Your task to perform on an android device: change text size in settings app Image 0: 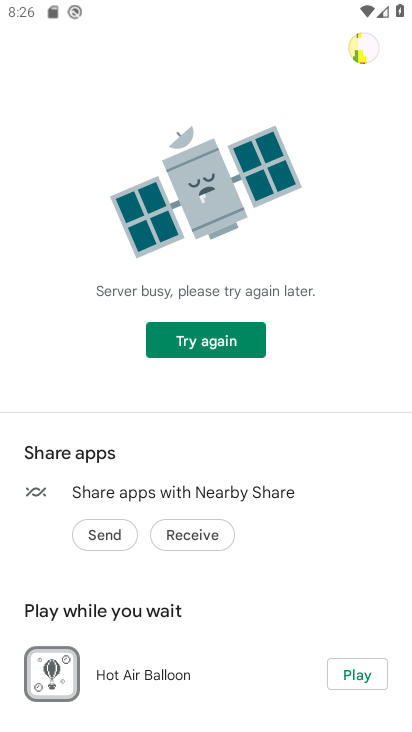
Step 0: press home button
Your task to perform on an android device: change text size in settings app Image 1: 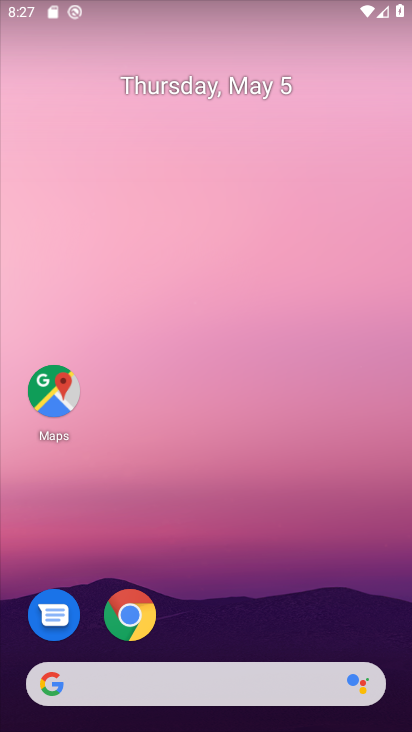
Step 1: drag from (129, 657) to (127, 198)
Your task to perform on an android device: change text size in settings app Image 2: 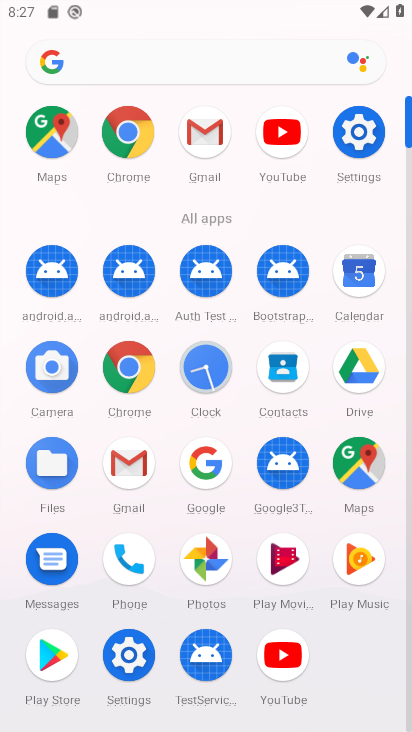
Step 2: click (370, 139)
Your task to perform on an android device: change text size in settings app Image 3: 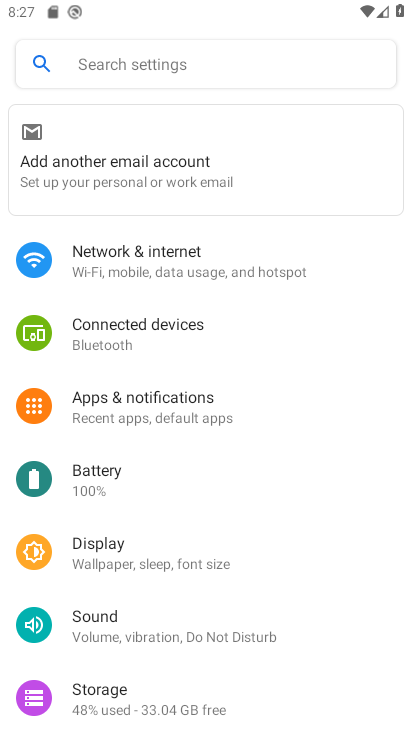
Step 3: drag from (142, 689) to (140, 283)
Your task to perform on an android device: change text size in settings app Image 4: 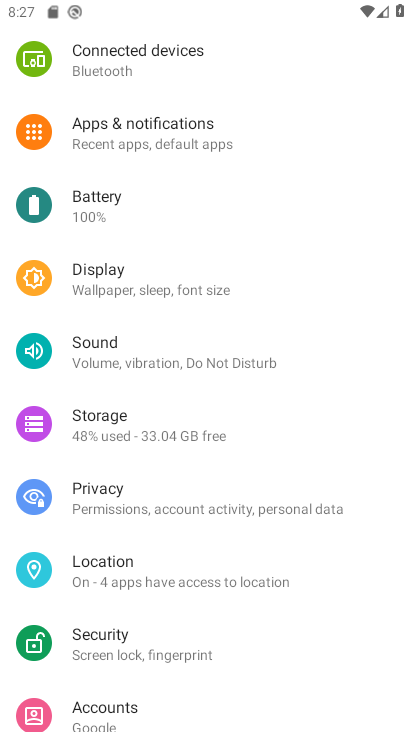
Step 4: drag from (187, 698) to (184, 224)
Your task to perform on an android device: change text size in settings app Image 5: 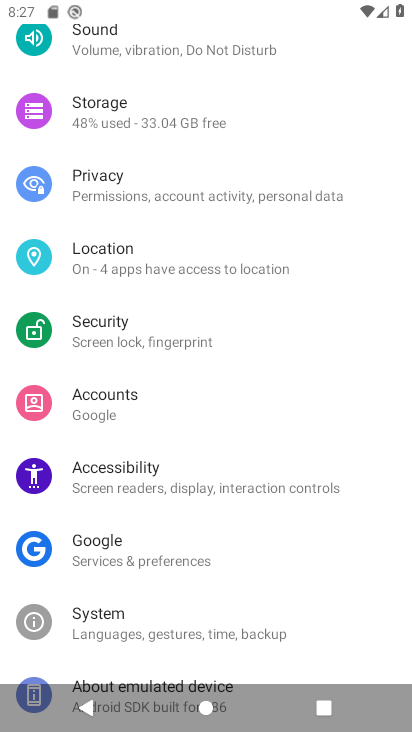
Step 5: drag from (187, 634) to (184, 188)
Your task to perform on an android device: change text size in settings app Image 6: 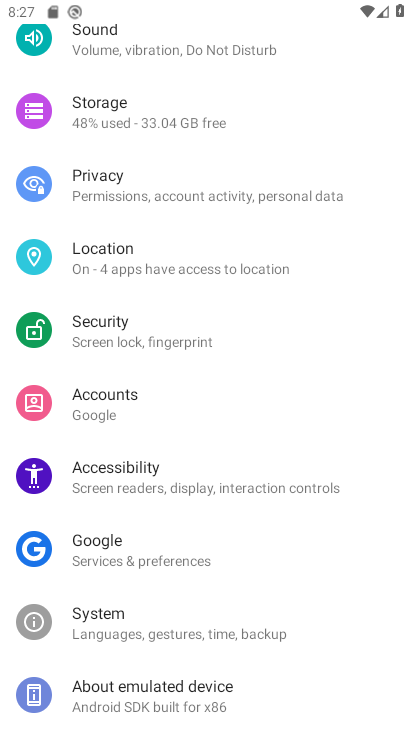
Step 6: click (150, 484)
Your task to perform on an android device: change text size in settings app Image 7: 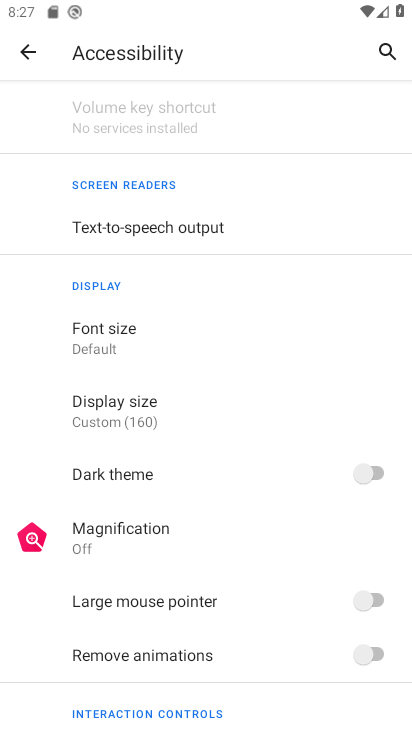
Step 7: click (112, 332)
Your task to perform on an android device: change text size in settings app Image 8: 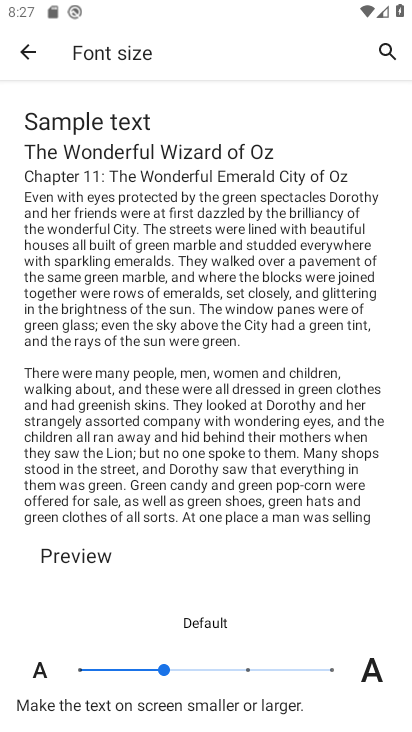
Step 8: click (250, 669)
Your task to perform on an android device: change text size in settings app Image 9: 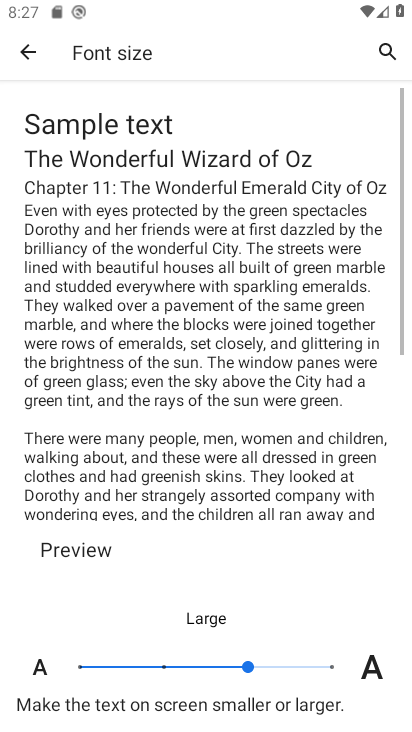
Step 9: task complete